Your task to perform on an android device: change the clock display to show seconds Image 0: 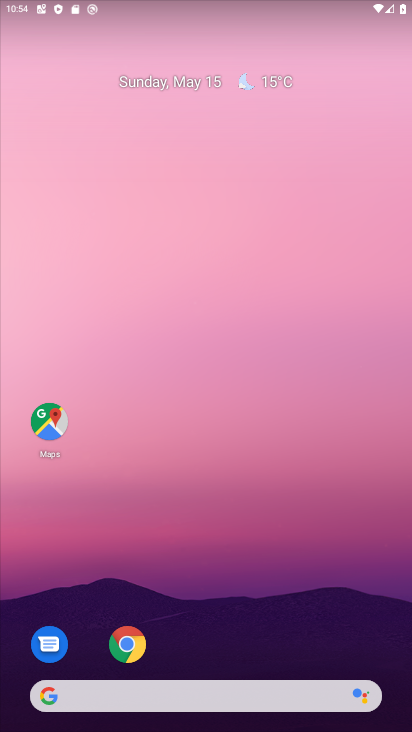
Step 0: drag from (283, 601) to (263, 140)
Your task to perform on an android device: change the clock display to show seconds Image 1: 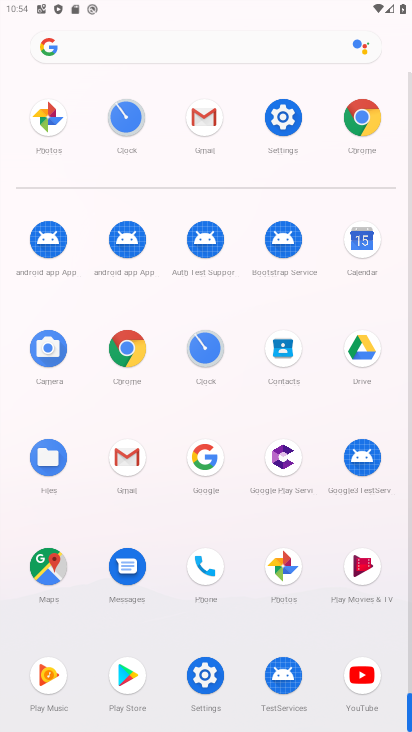
Step 1: click (208, 357)
Your task to perform on an android device: change the clock display to show seconds Image 2: 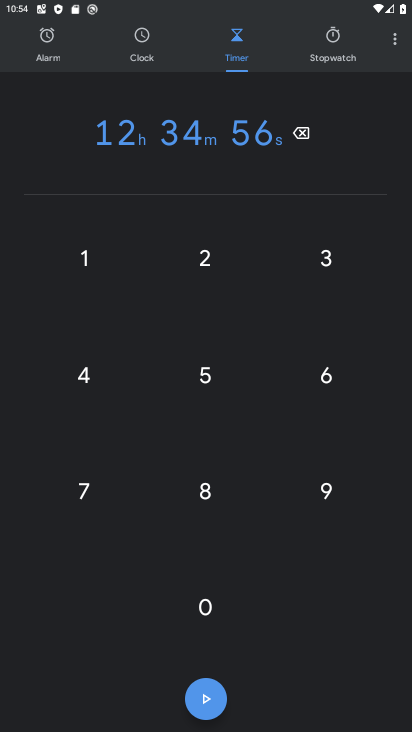
Step 2: click (395, 42)
Your task to perform on an android device: change the clock display to show seconds Image 3: 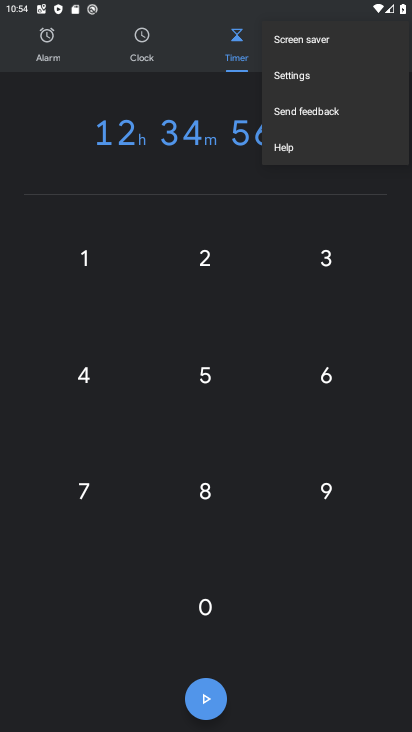
Step 3: click (326, 79)
Your task to perform on an android device: change the clock display to show seconds Image 4: 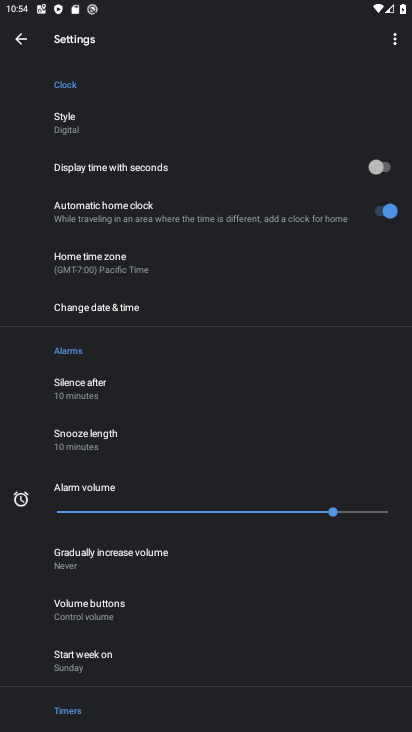
Step 4: click (385, 166)
Your task to perform on an android device: change the clock display to show seconds Image 5: 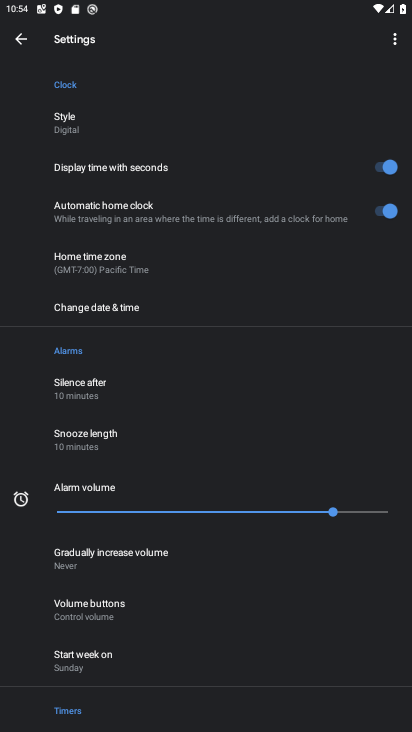
Step 5: task complete